Your task to perform on an android device: toggle pop-ups in chrome Image 0: 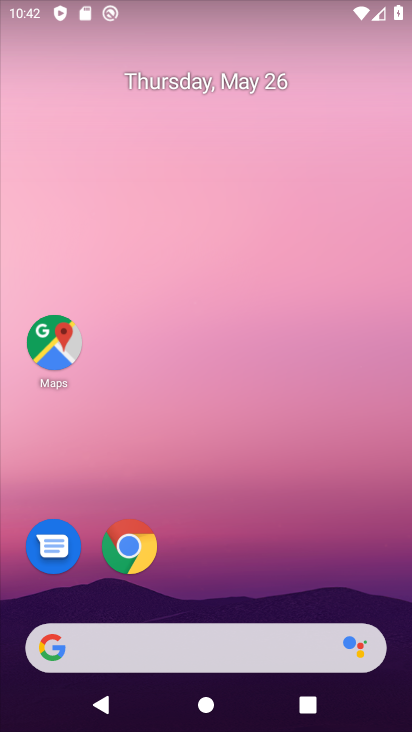
Step 0: drag from (270, 580) to (268, 132)
Your task to perform on an android device: toggle pop-ups in chrome Image 1: 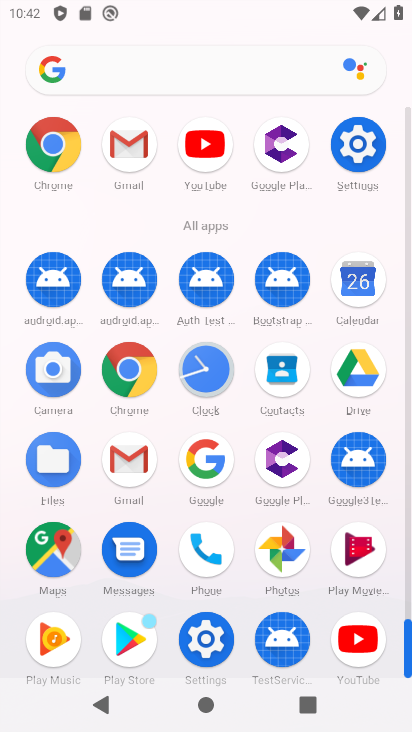
Step 1: drag from (234, 222) to (247, 56)
Your task to perform on an android device: toggle pop-ups in chrome Image 2: 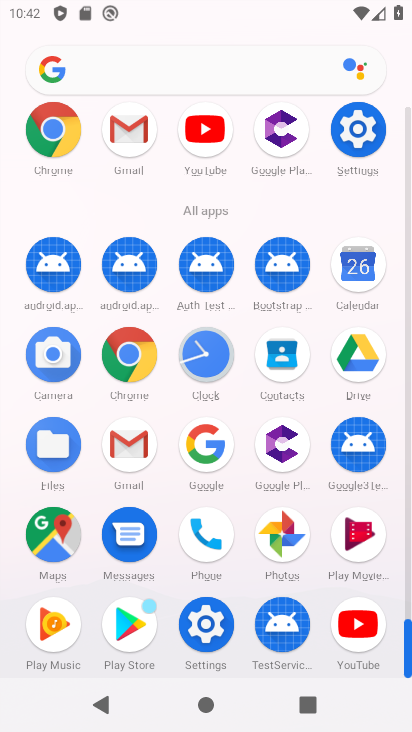
Step 2: click (128, 369)
Your task to perform on an android device: toggle pop-ups in chrome Image 3: 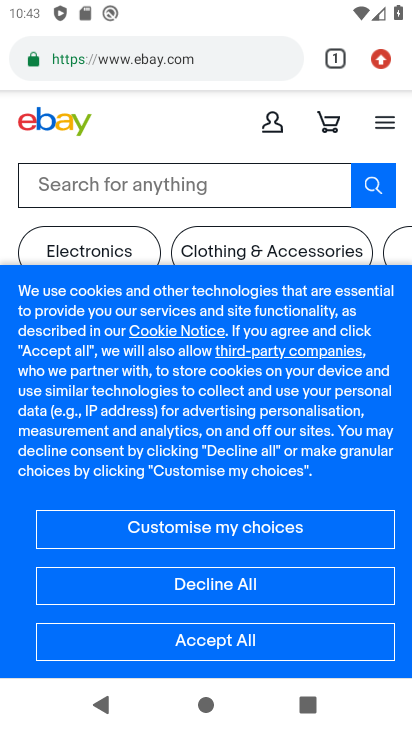
Step 3: click (386, 63)
Your task to perform on an android device: toggle pop-ups in chrome Image 4: 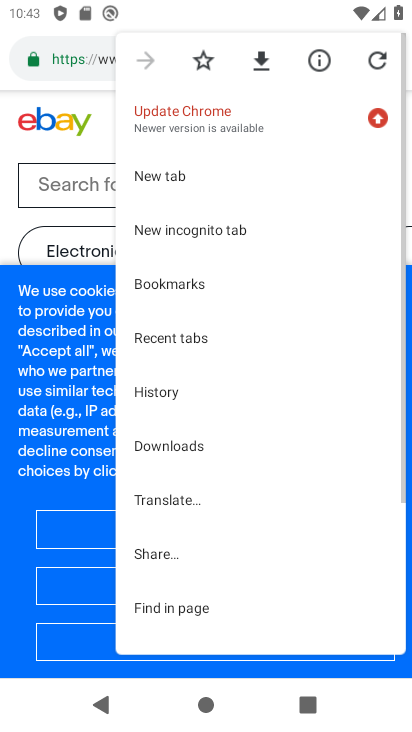
Step 4: drag from (240, 527) to (268, 161)
Your task to perform on an android device: toggle pop-ups in chrome Image 5: 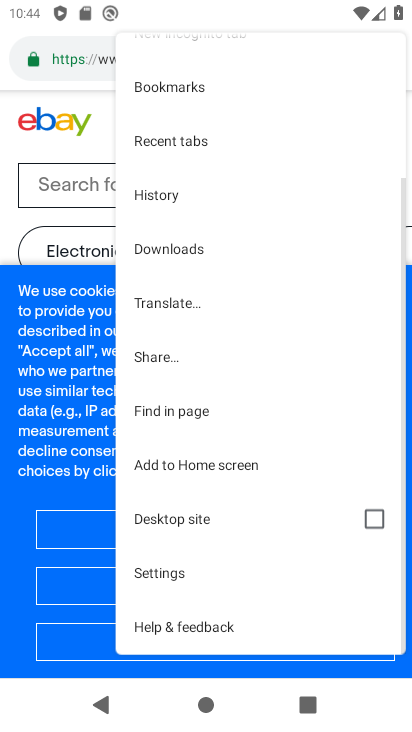
Step 5: click (207, 576)
Your task to perform on an android device: toggle pop-ups in chrome Image 6: 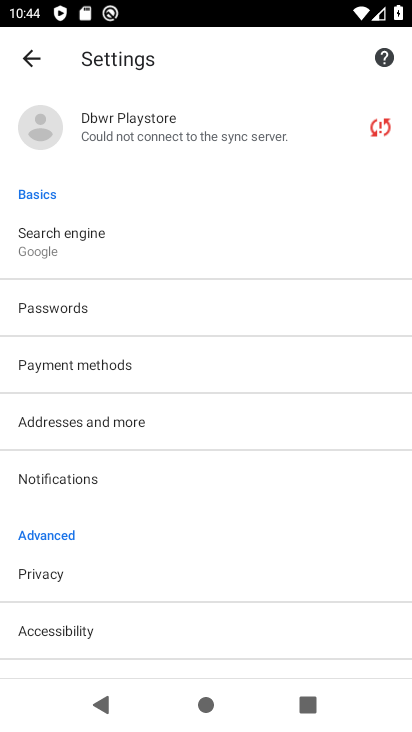
Step 6: drag from (204, 527) to (210, 227)
Your task to perform on an android device: toggle pop-ups in chrome Image 7: 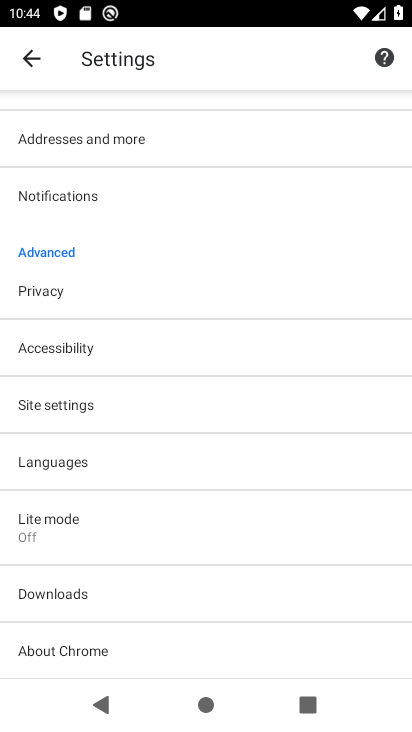
Step 7: click (128, 411)
Your task to perform on an android device: toggle pop-ups in chrome Image 8: 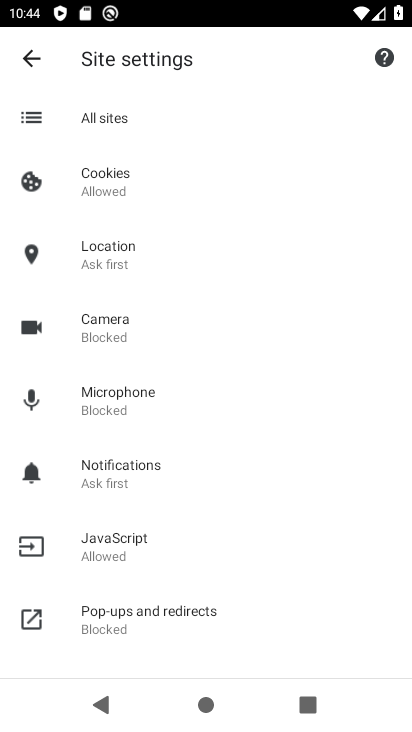
Step 8: click (176, 616)
Your task to perform on an android device: toggle pop-ups in chrome Image 9: 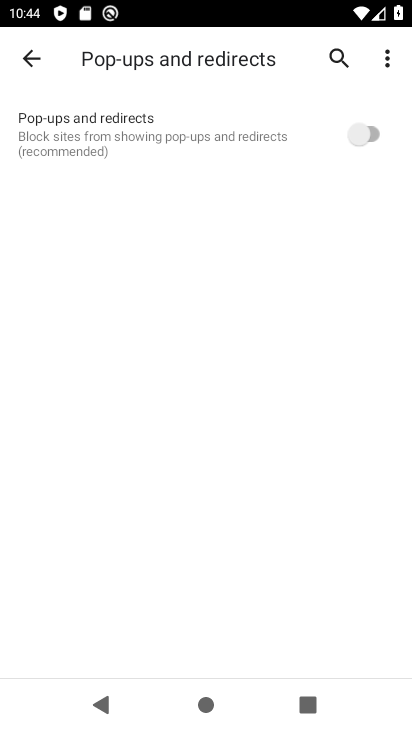
Step 9: click (355, 135)
Your task to perform on an android device: toggle pop-ups in chrome Image 10: 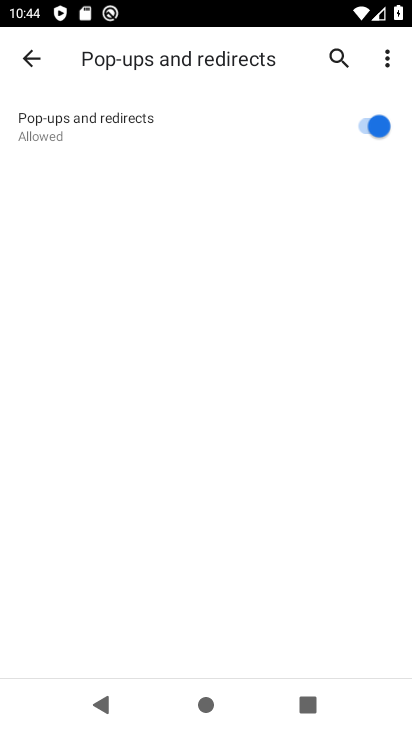
Step 10: task complete